Your task to perform on an android device: toggle show notifications on the lock screen Image 0: 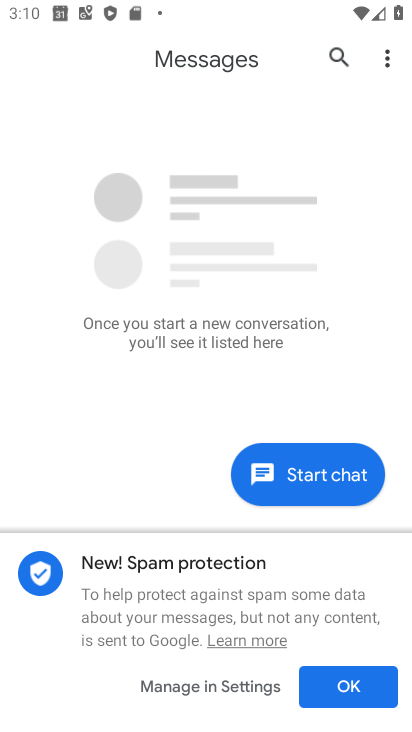
Step 0: press home button
Your task to perform on an android device: toggle show notifications on the lock screen Image 1: 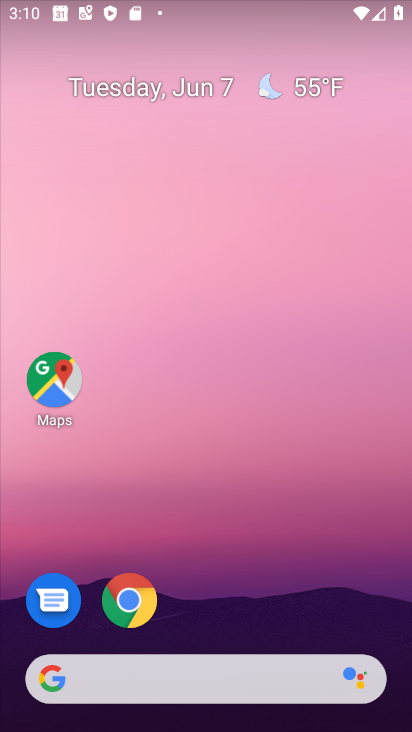
Step 1: drag from (189, 621) to (189, 53)
Your task to perform on an android device: toggle show notifications on the lock screen Image 2: 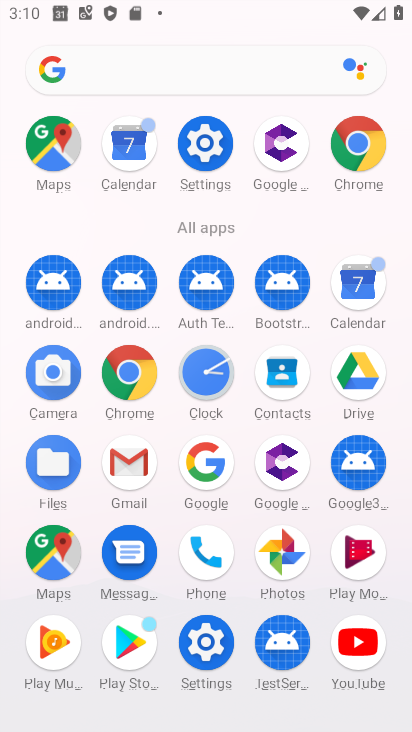
Step 2: click (208, 161)
Your task to perform on an android device: toggle show notifications on the lock screen Image 3: 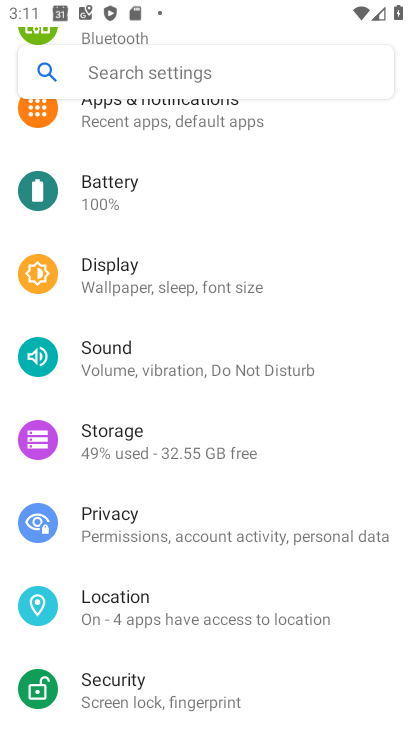
Step 3: click (153, 128)
Your task to perform on an android device: toggle show notifications on the lock screen Image 4: 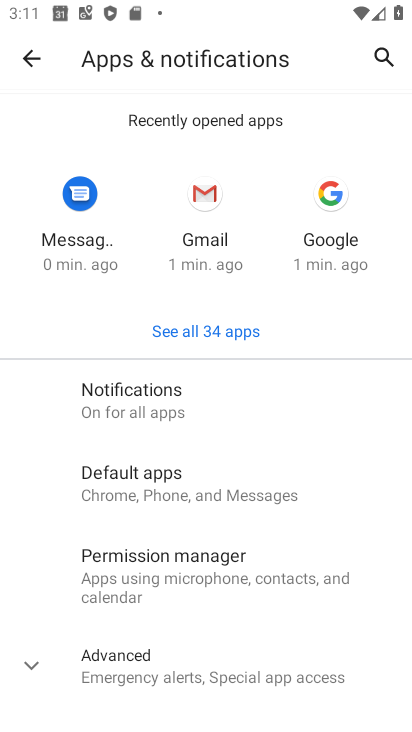
Step 4: click (136, 403)
Your task to perform on an android device: toggle show notifications on the lock screen Image 5: 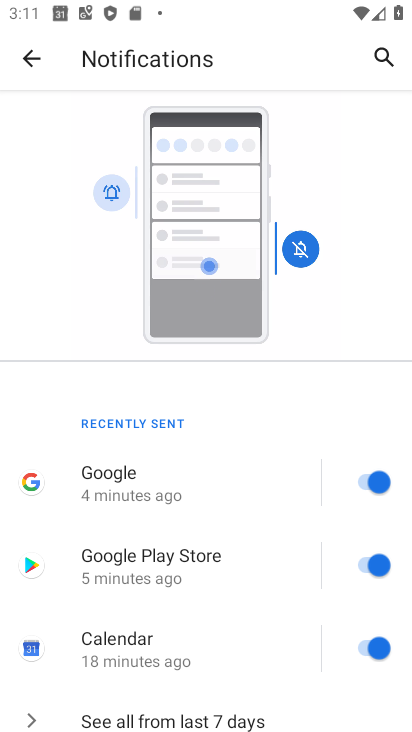
Step 5: drag from (182, 633) to (210, 278)
Your task to perform on an android device: toggle show notifications on the lock screen Image 6: 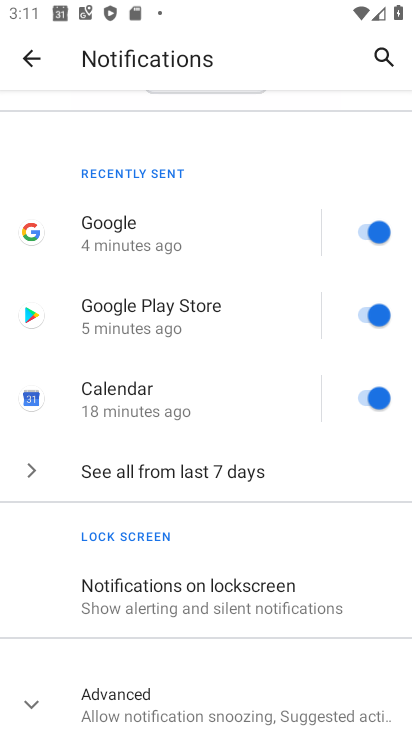
Step 6: click (214, 604)
Your task to perform on an android device: toggle show notifications on the lock screen Image 7: 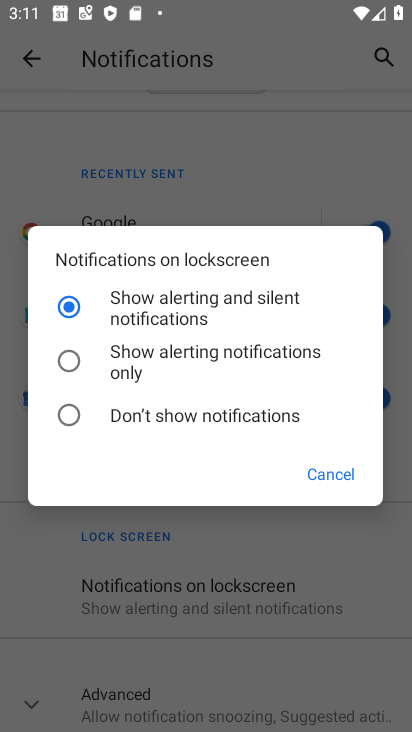
Step 7: click (73, 424)
Your task to perform on an android device: toggle show notifications on the lock screen Image 8: 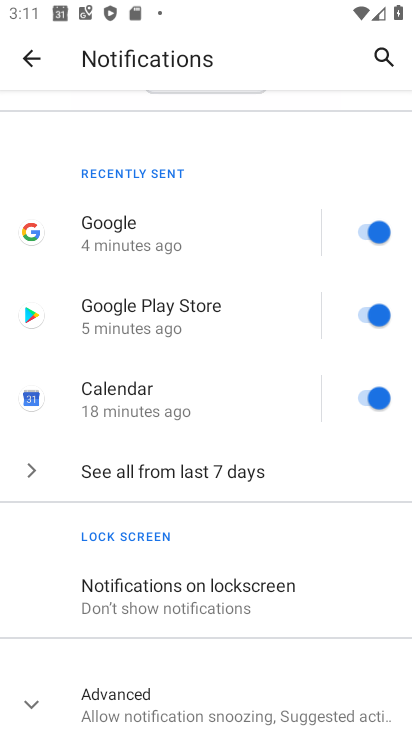
Step 8: task complete